Your task to perform on an android device: Go to display settings Image 0: 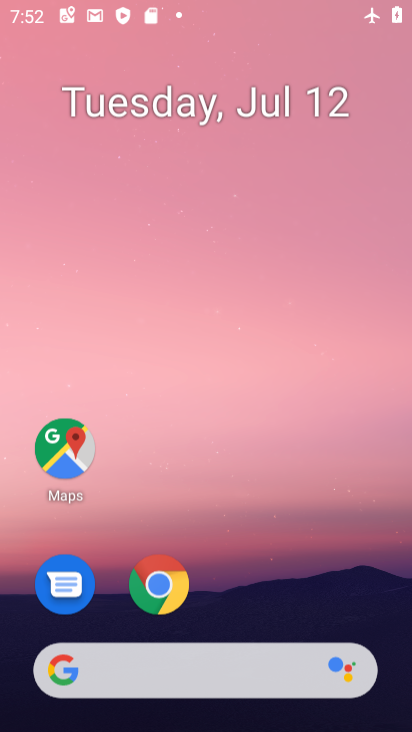
Step 0: click (341, 68)
Your task to perform on an android device: Go to display settings Image 1: 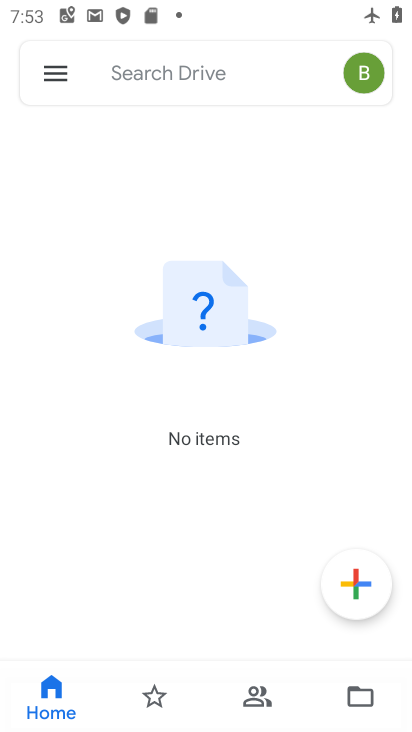
Step 1: press home button
Your task to perform on an android device: Go to display settings Image 2: 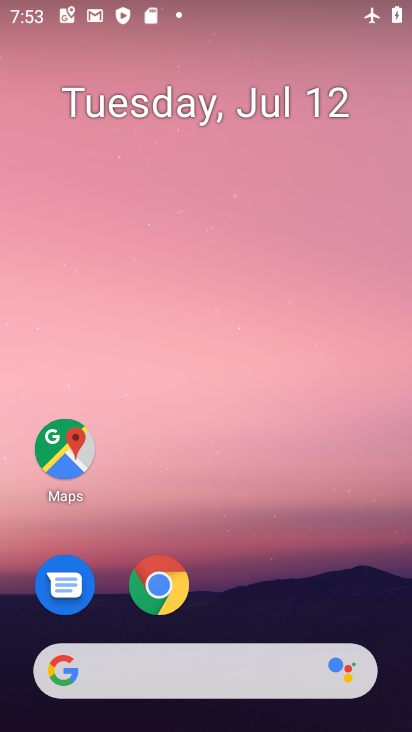
Step 2: drag from (283, 583) to (299, 0)
Your task to perform on an android device: Go to display settings Image 3: 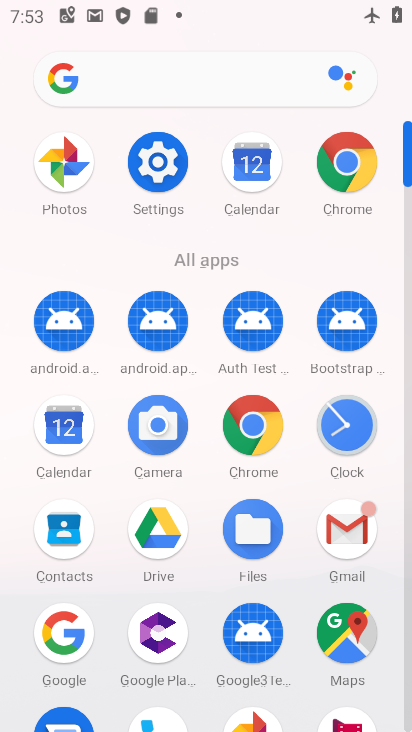
Step 3: click (162, 158)
Your task to perform on an android device: Go to display settings Image 4: 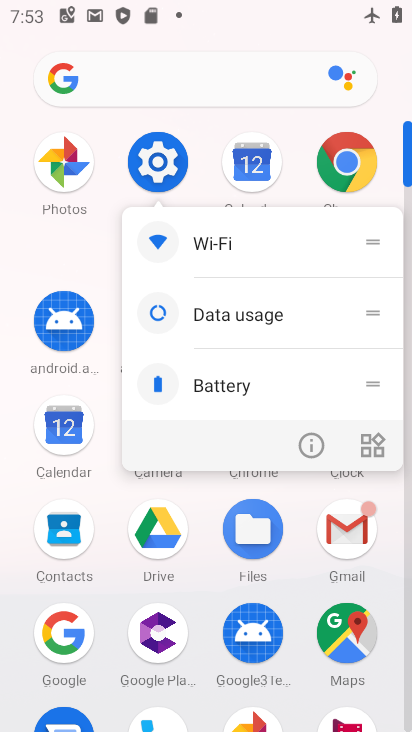
Step 4: click (162, 156)
Your task to perform on an android device: Go to display settings Image 5: 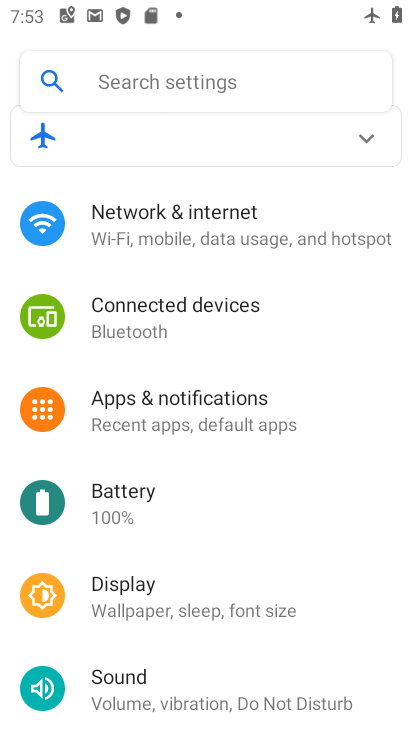
Step 5: click (156, 602)
Your task to perform on an android device: Go to display settings Image 6: 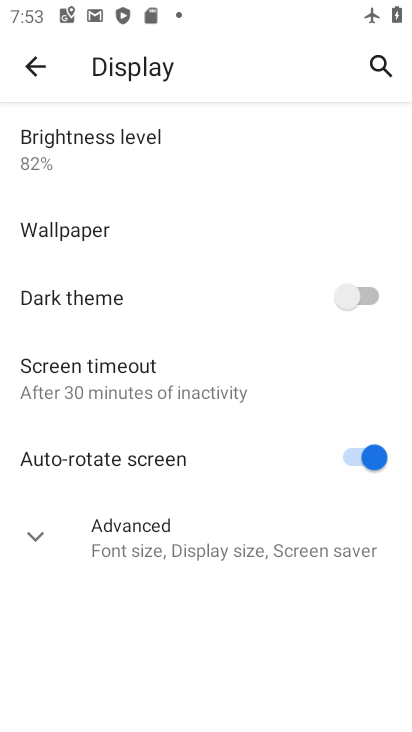
Step 6: task complete